Your task to perform on an android device: clear history in the chrome app Image 0: 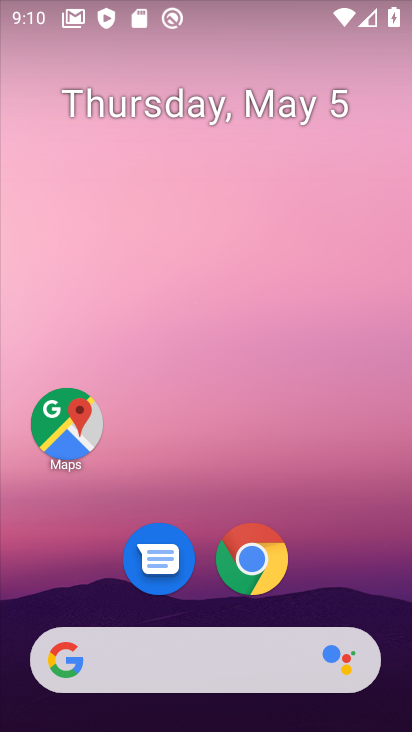
Step 0: click (256, 555)
Your task to perform on an android device: clear history in the chrome app Image 1: 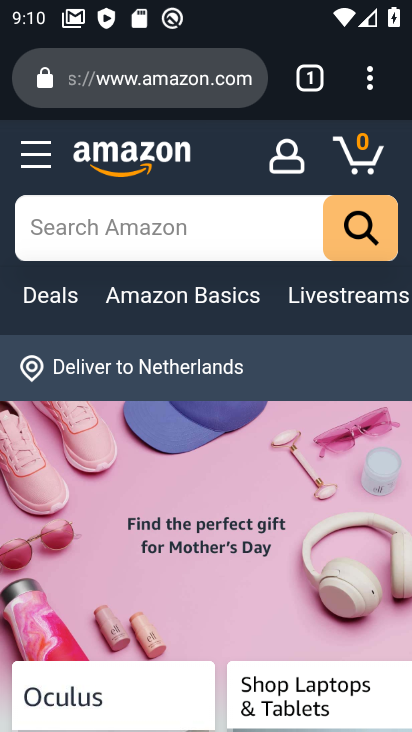
Step 1: click (376, 80)
Your task to perform on an android device: clear history in the chrome app Image 2: 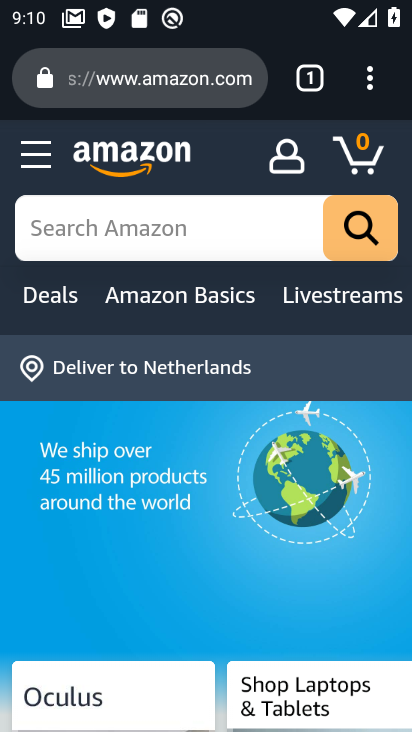
Step 2: click (363, 74)
Your task to perform on an android device: clear history in the chrome app Image 3: 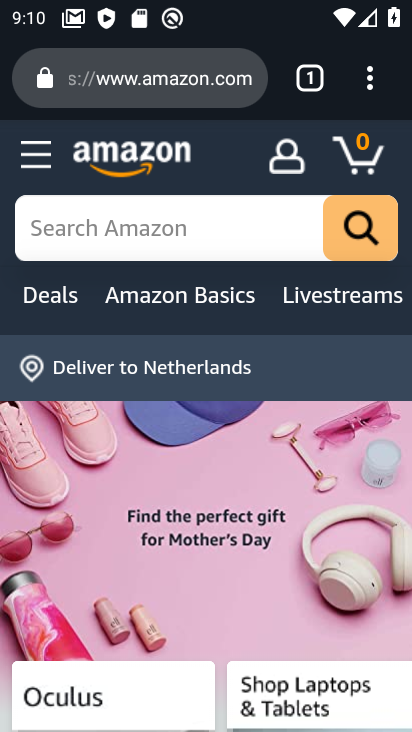
Step 3: click (367, 73)
Your task to perform on an android device: clear history in the chrome app Image 4: 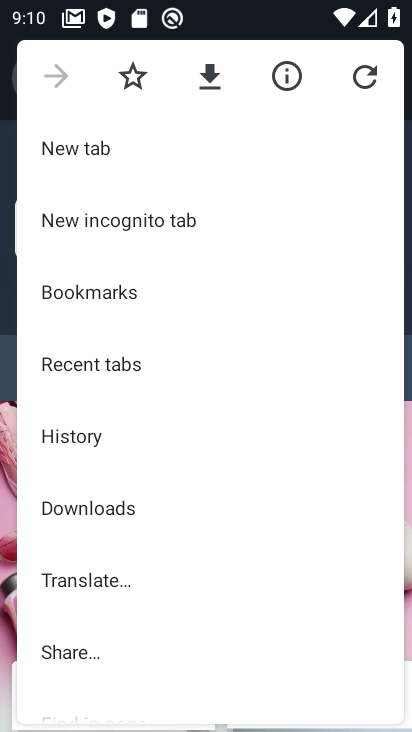
Step 4: click (116, 437)
Your task to perform on an android device: clear history in the chrome app Image 5: 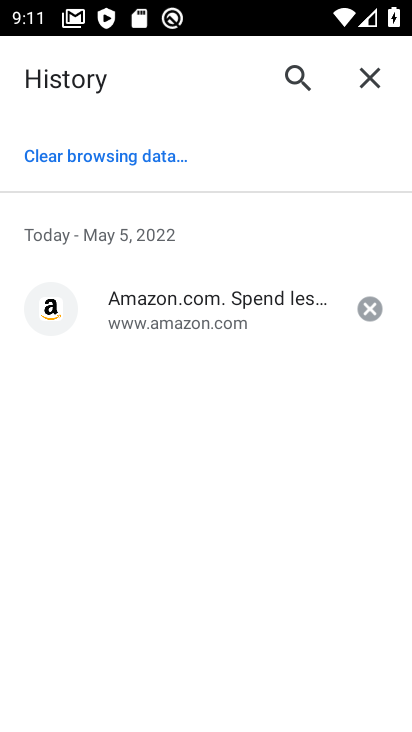
Step 5: click (120, 157)
Your task to perform on an android device: clear history in the chrome app Image 6: 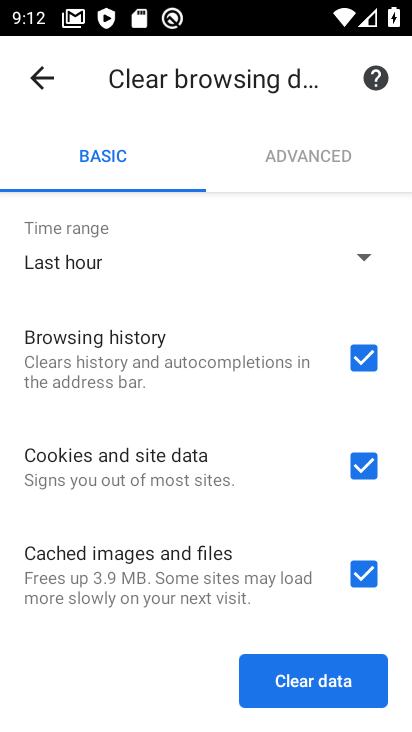
Step 6: click (289, 690)
Your task to perform on an android device: clear history in the chrome app Image 7: 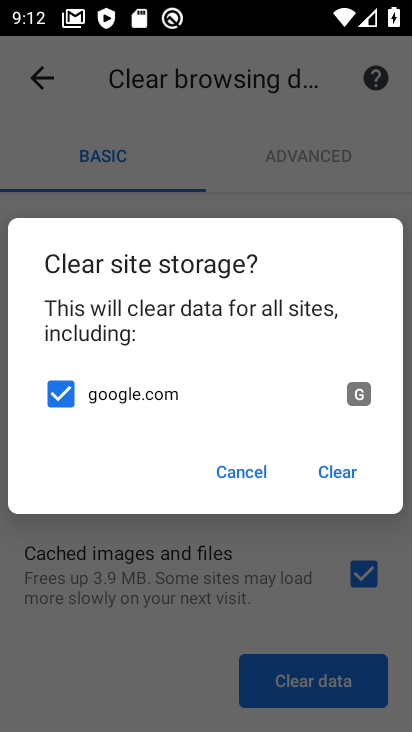
Step 7: click (331, 462)
Your task to perform on an android device: clear history in the chrome app Image 8: 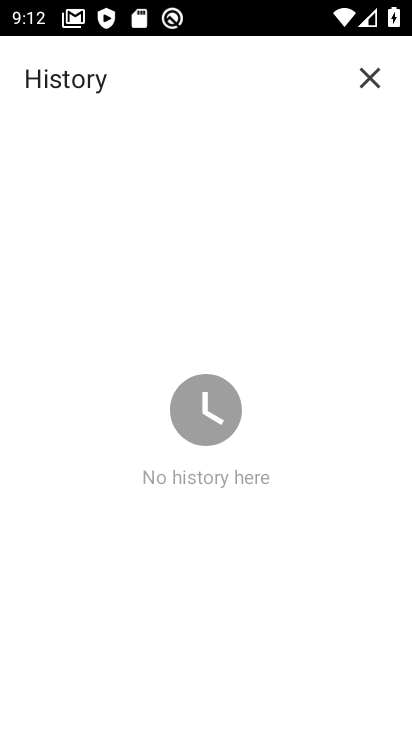
Step 8: task complete